Your task to perform on an android device: toggle data saver in the chrome app Image 0: 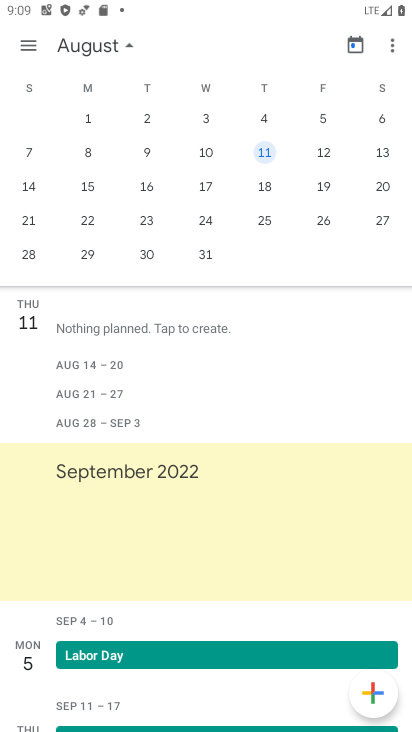
Step 0: press home button
Your task to perform on an android device: toggle data saver in the chrome app Image 1: 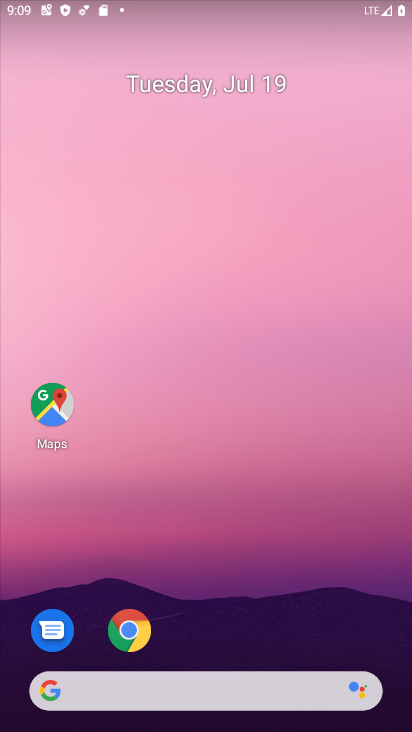
Step 1: drag from (208, 632) to (235, 83)
Your task to perform on an android device: toggle data saver in the chrome app Image 2: 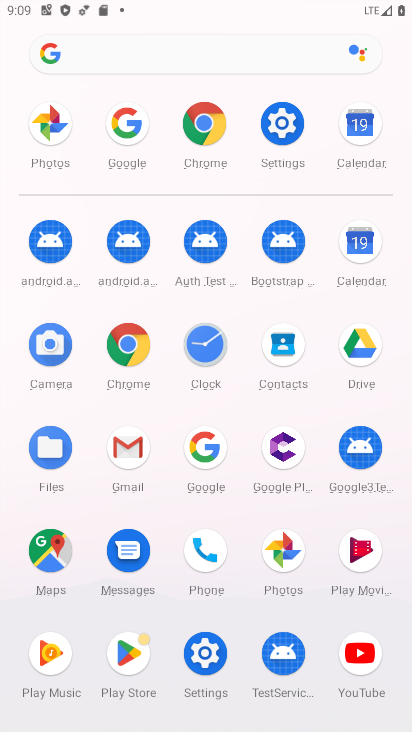
Step 2: click (207, 122)
Your task to perform on an android device: toggle data saver in the chrome app Image 3: 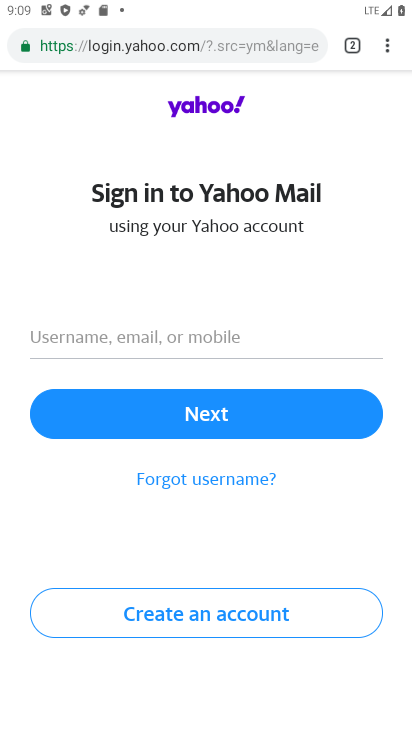
Step 3: click (382, 47)
Your task to perform on an android device: toggle data saver in the chrome app Image 4: 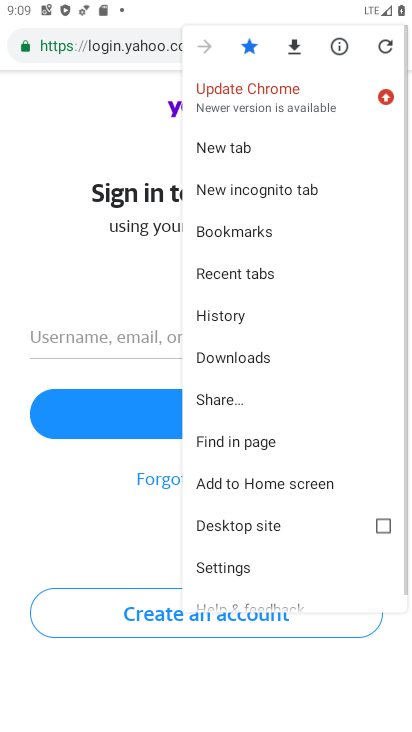
Step 4: click (232, 567)
Your task to perform on an android device: toggle data saver in the chrome app Image 5: 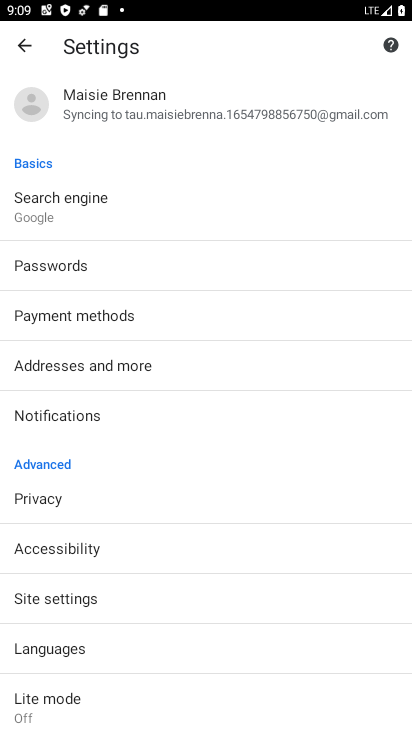
Step 5: click (63, 701)
Your task to perform on an android device: toggle data saver in the chrome app Image 6: 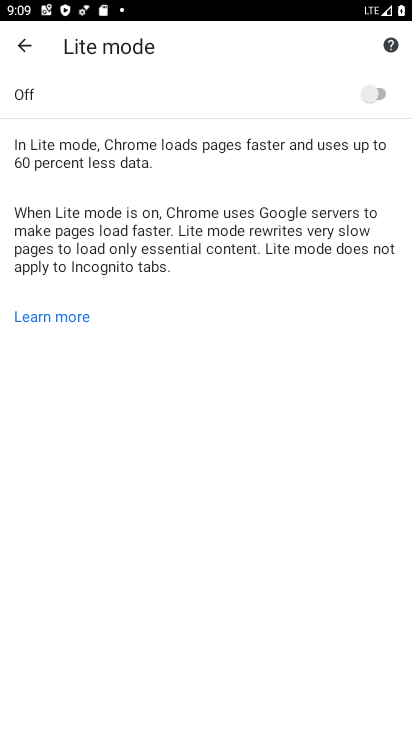
Step 6: click (376, 95)
Your task to perform on an android device: toggle data saver in the chrome app Image 7: 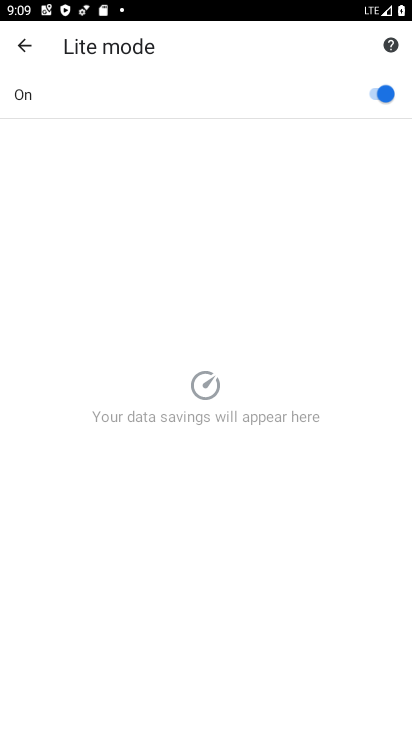
Step 7: task complete